Your task to perform on an android device: Open Chrome and go to the settings page Image 0: 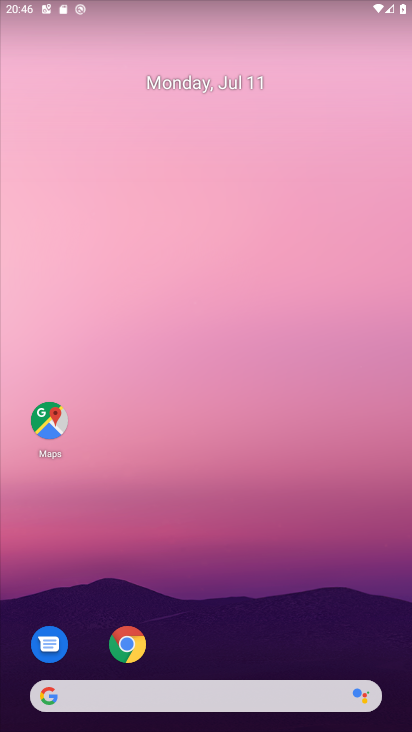
Step 0: click (250, 150)
Your task to perform on an android device: Open Chrome and go to the settings page Image 1: 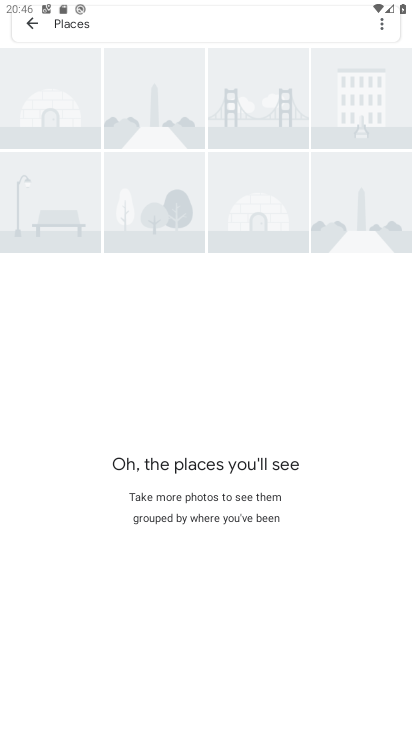
Step 1: press home button
Your task to perform on an android device: Open Chrome and go to the settings page Image 2: 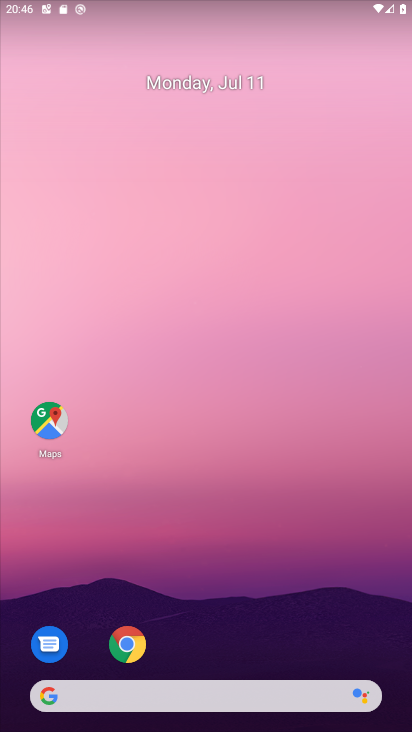
Step 2: drag from (256, 627) to (244, 215)
Your task to perform on an android device: Open Chrome and go to the settings page Image 3: 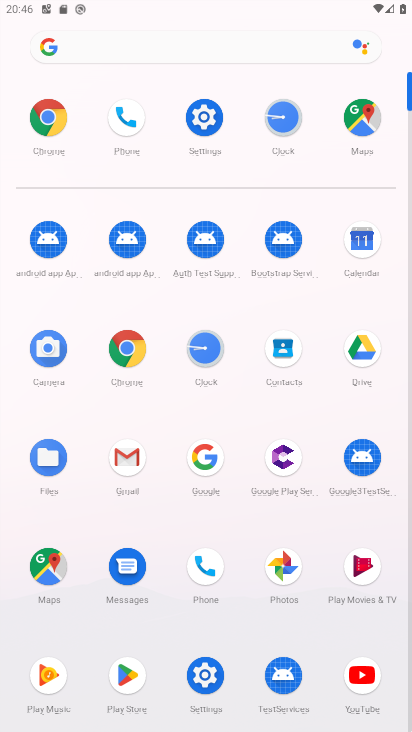
Step 3: click (35, 125)
Your task to perform on an android device: Open Chrome and go to the settings page Image 4: 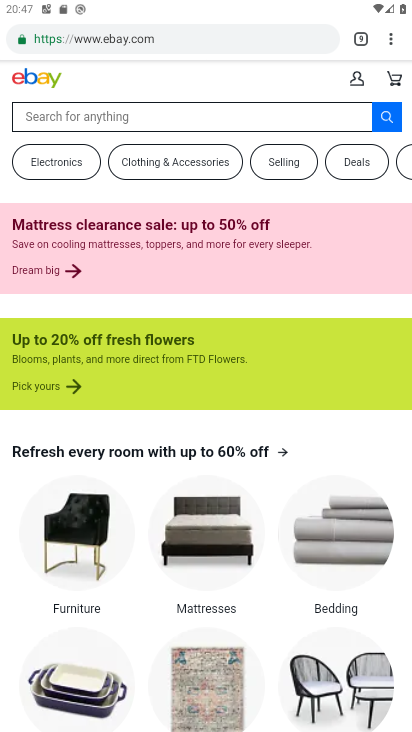
Step 4: click (389, 29)
Your task to perform on an android device: Open Chrome and go to the settings page Image 5: 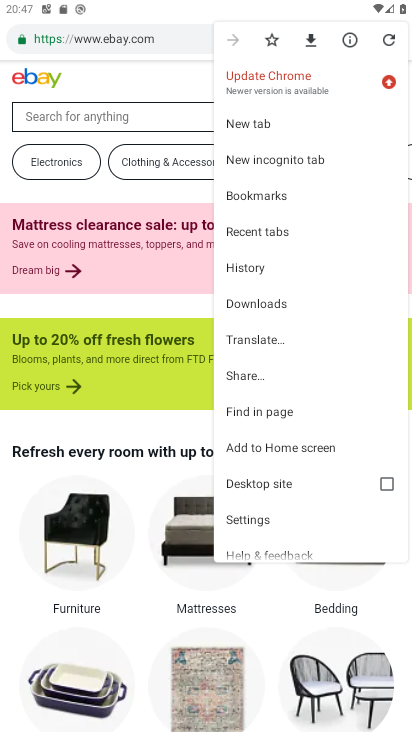
Step 5: click (243, 514)
Your task to perform on an android device: Open Chrome and go to the settings page Image 6: 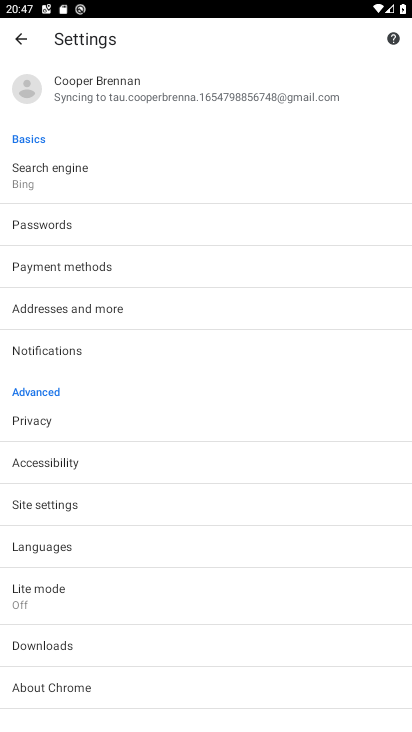
Step 6: task complete